Your task to perform on an android device: Open wifi settings Image 0: 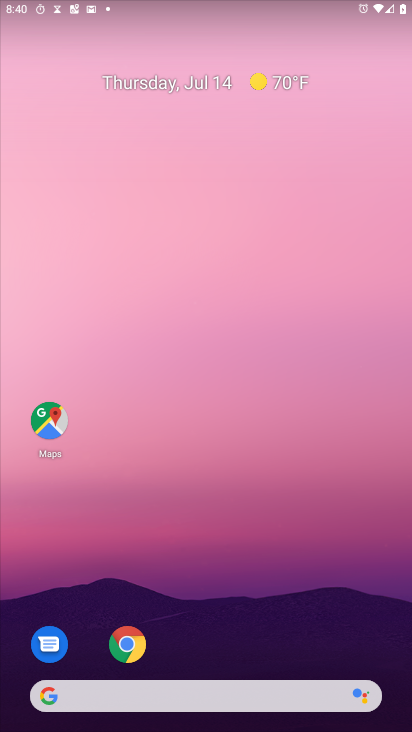
Step 0: drag from (197, 700) to (288, 213)
Your task to perform on an android device: Open wifi settings Image 1: 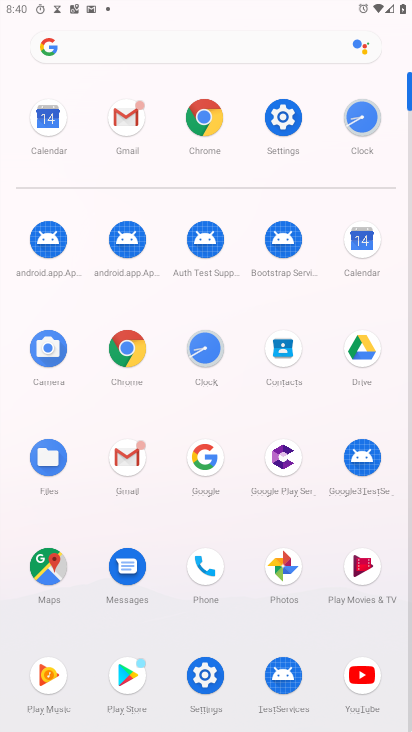
Step 1: click (285, 122)
Your task to perform on an android device: Open wifi settings Image 2: 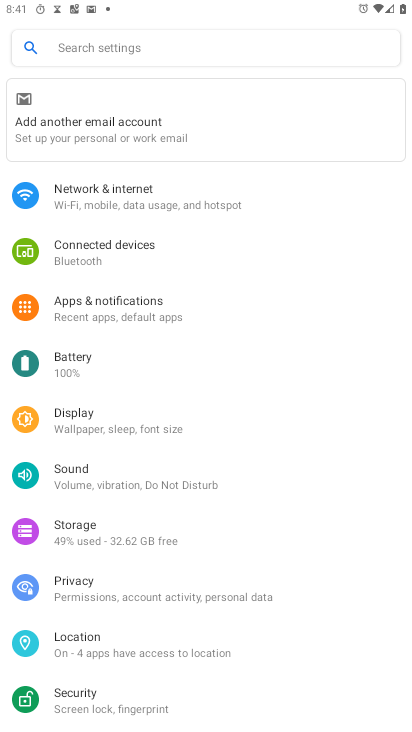
Step 2: click (139, 202)
Your task to perform on an android device: Open wifi settings Image 3: 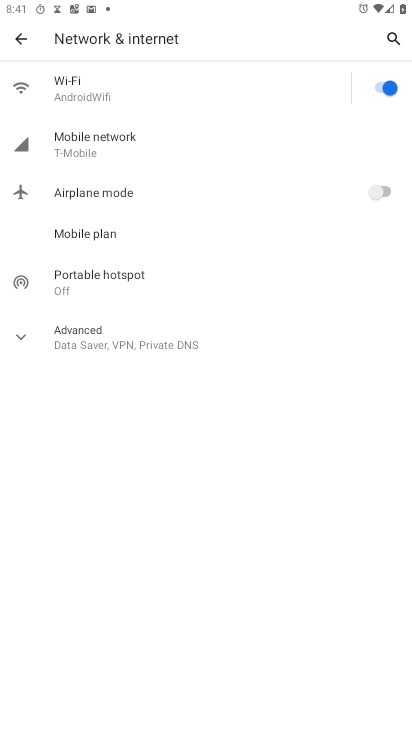
Step 3: click (83, 92)
Your task to perform on an android device: Open wifi settings Image 4: 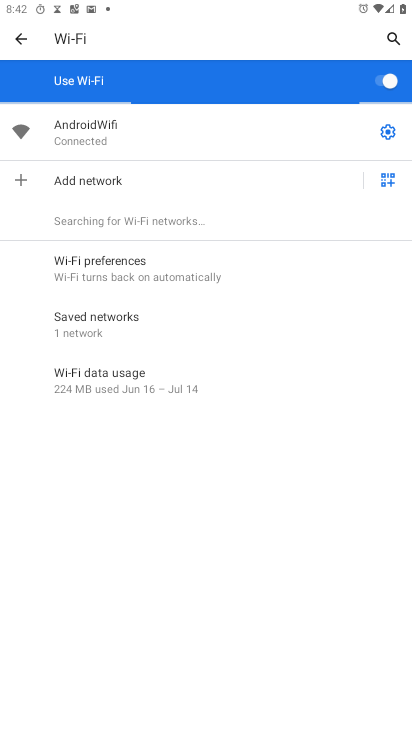
Step 4: task complete